Your task to perform on an android device: toggle notification dots Image 0: 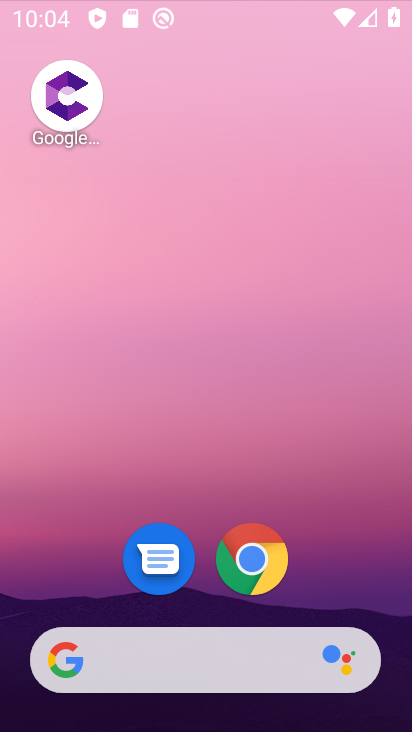
Step 0: drag from (298, 674) to (193, 241)
Your task to perform on an android device: toggle notification dots Image 1: 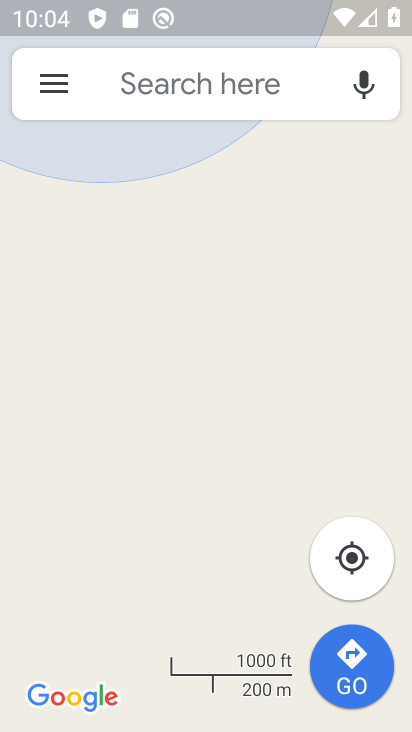
Step 1: press home button
Your task to perform on an android device: toggle notification dots Image 2: 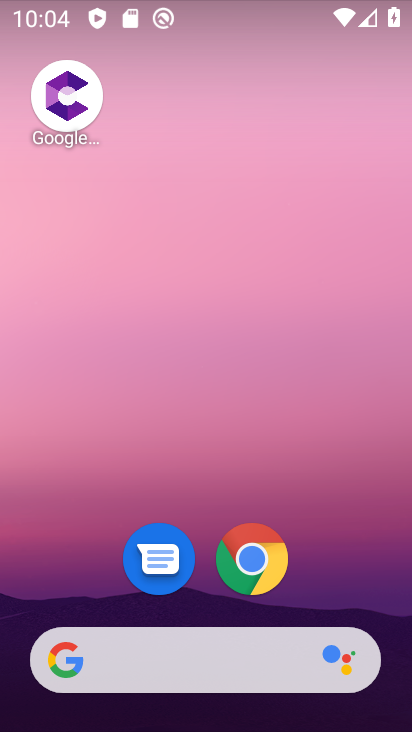
Step 2: drag from (266, 697) to (238, 183)
Your task to perform on an android device: toggle notification dots Image 3: 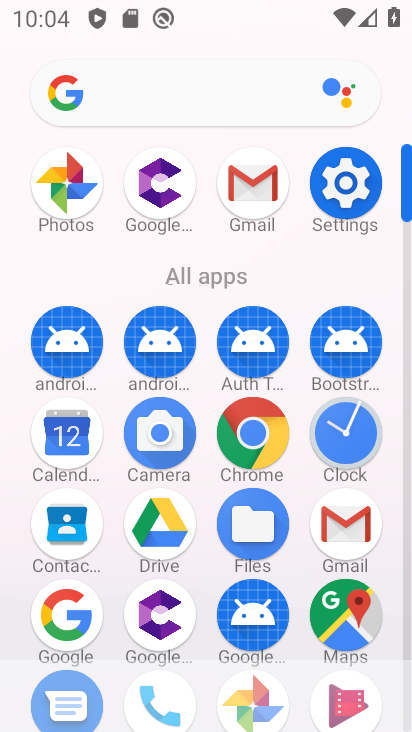
Step 3: click (354, 199)
Your task to perform on an android device: toggle notification dots Image 4: 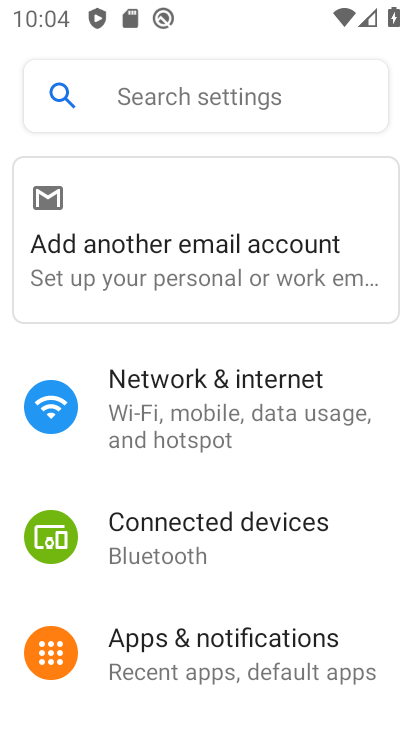
Step 4: click (164, 105)
Your task to perform on an android device: toggle notification dots Image 5: 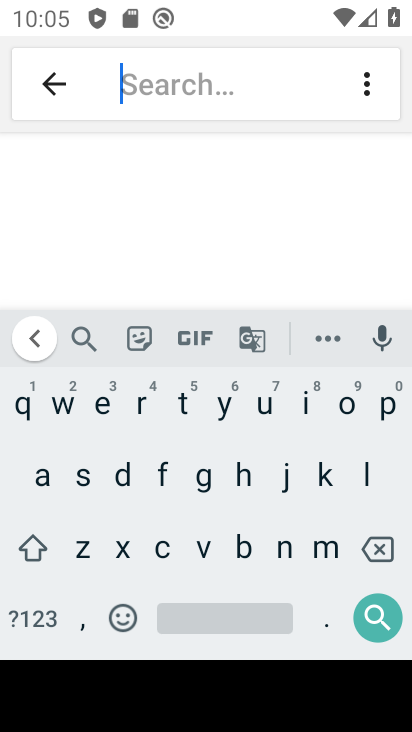
Step 5: click (124, 470)
Your task to perform on an android device: toggle notification dots Image 6: 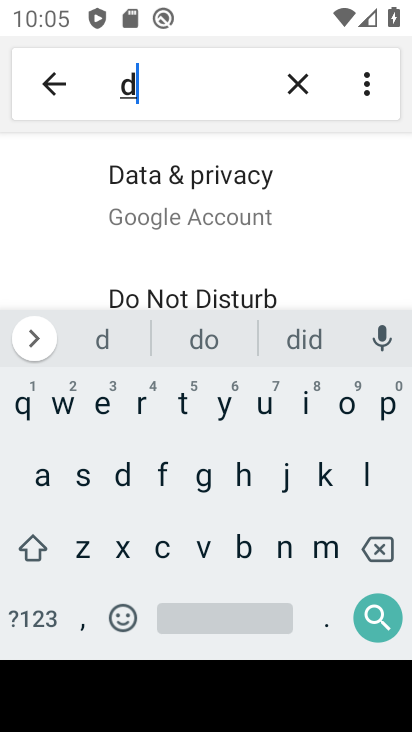
Step 6: click (340, 412)
Your task to perform on an android device: toggle notification dots Image 7: 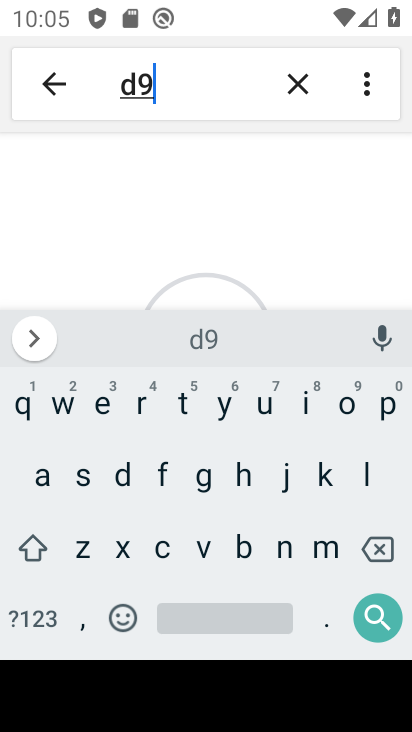
Step 7: click (383, 553)
Your task to perform on an android device: toggle notification dots Image 8: 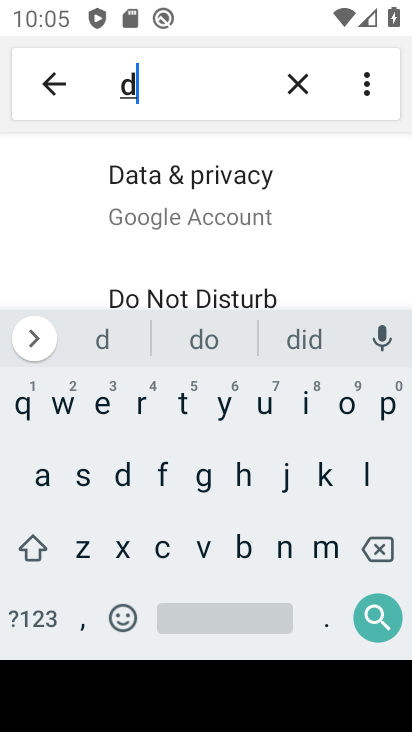
Step 8: click (340, 402)
Your task to perform on an android device: toggle notification dots Image 9: 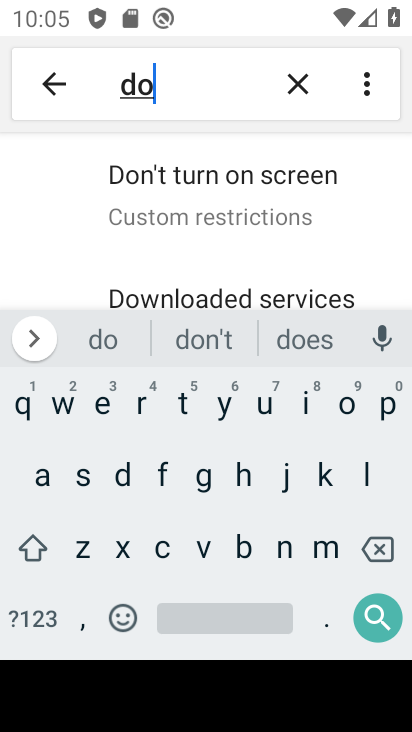
Step 9: click (183, 408)
Your task to perform on an android device: toggle notification dots Image 10: 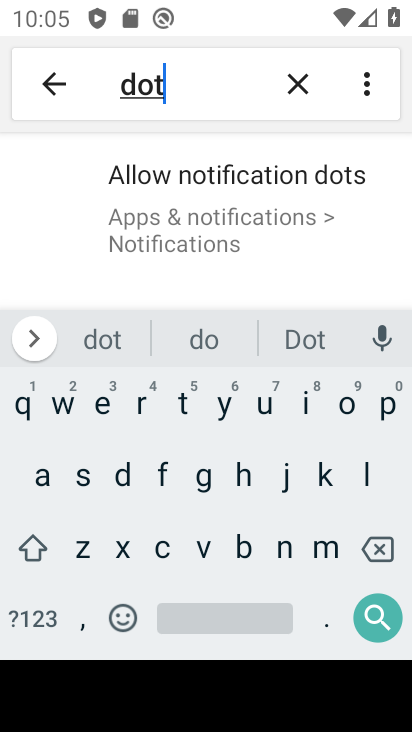
Step 10: click (204, 185)
Your task to perform on an android device: toggle notification dots Image 11: 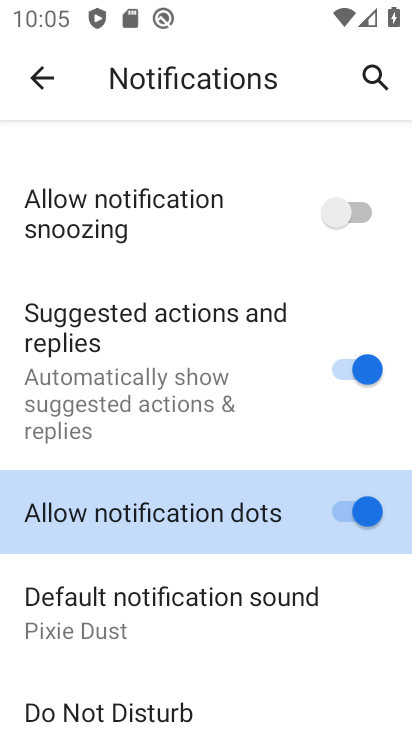
Step 11: task complete